Your task to perform on an android device: turn off data saver in the chrome app Image 0: 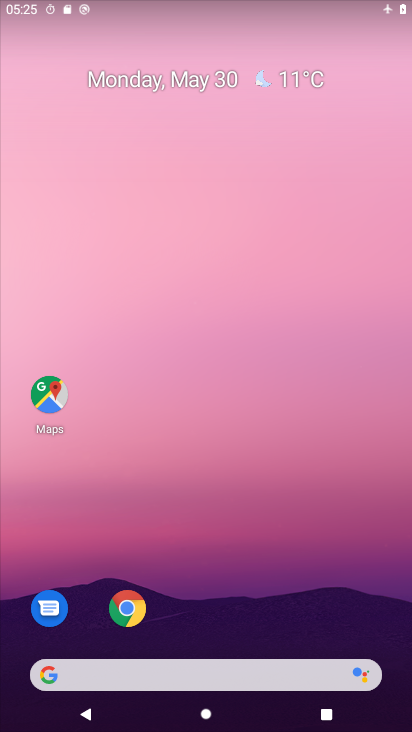
Step 0: drag from (226, 607) to (190, 47)
Your task to perform on an android device: turn off data saver in the chrome app Image 1: 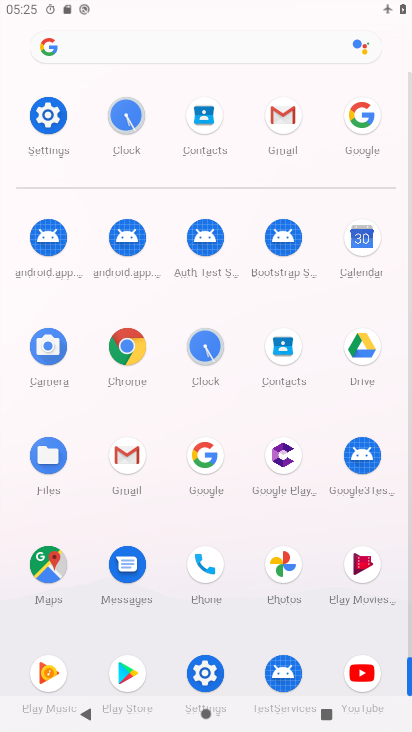
Step 1: click (140, 353)
Your task to perform on an android device: turn off data saver in the chrome app Image 2: 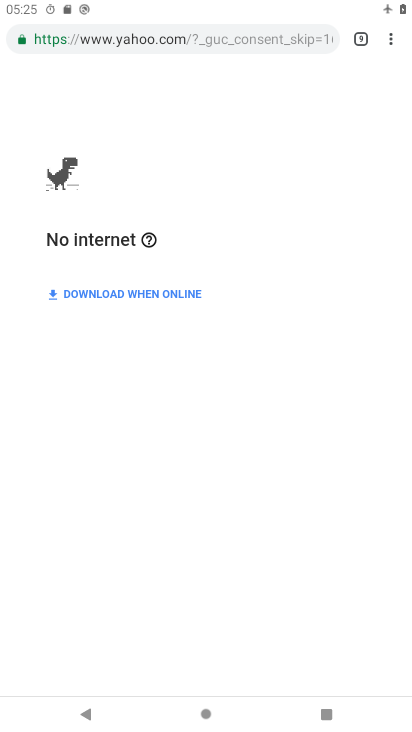
Step 2: click (362, 44)
Your task to perform on an android device: turn off data saver in the chrome app Image 3: 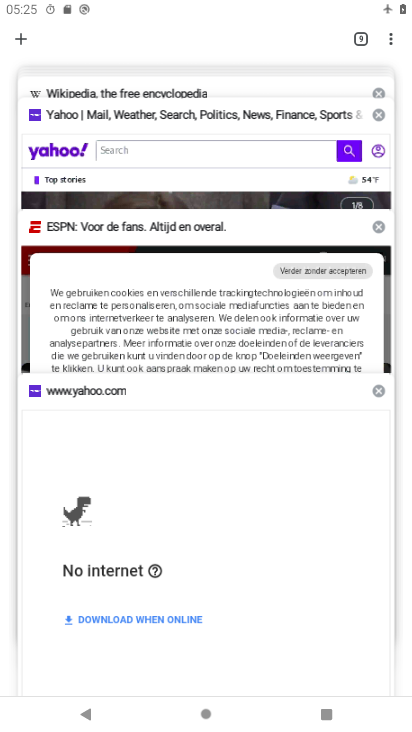
Step 3: click (25, 41)
Your task to perform on an android device: turn off data saver in the chrome app Image 4: 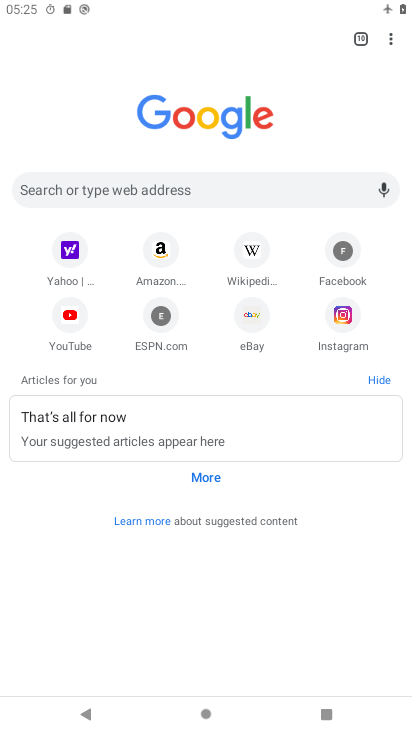
Step 4: click (382, 41)
Your task to perform on an android device: turn off data saver in the chrome app Image 5: 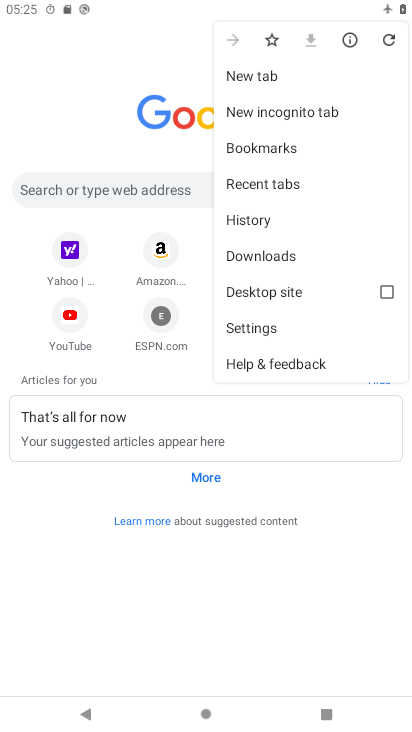
Step 5: click (285, 317)
Your task to perform on an android device: turn off data saver in the chrome app Image 6: 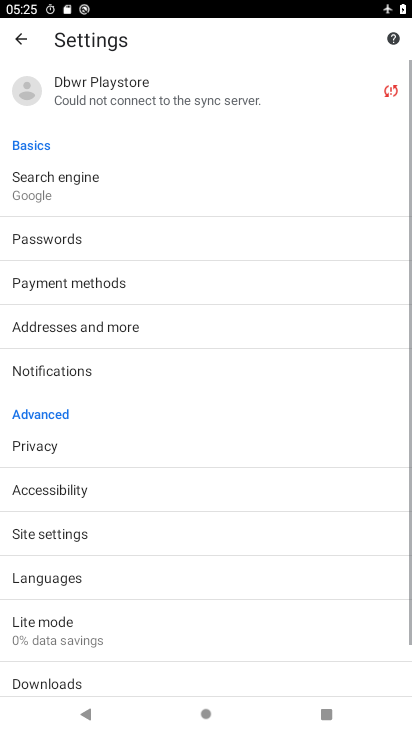
Step 6: click (97, 645)
Your task to perform on an android device: turn off data saver in the chrome app Image 7: 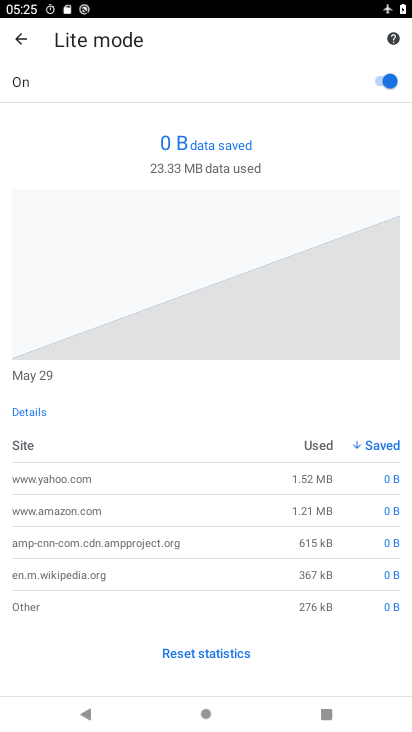
Step 7: click (388, 76)
Your task to perform on an android device: turn off data saver in the chrome app Image 8: 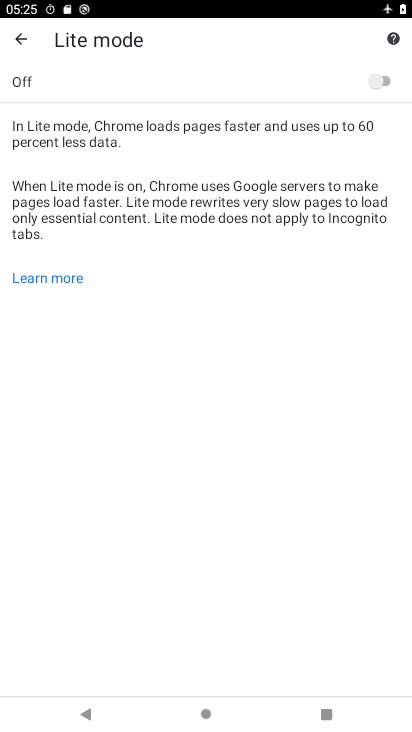
Step 8: task complete